Your task to perform on an android device: Open internet settings Image 0: 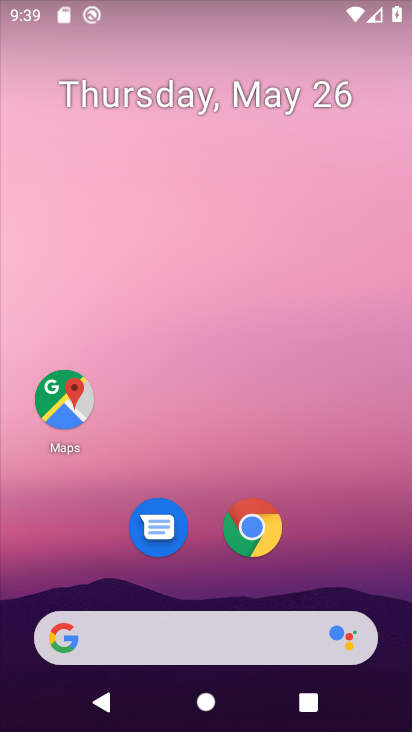
Step 0: drag from (151, 720) to (150, 66)
Your task to perform on an android device: Open internet settings Image 1: 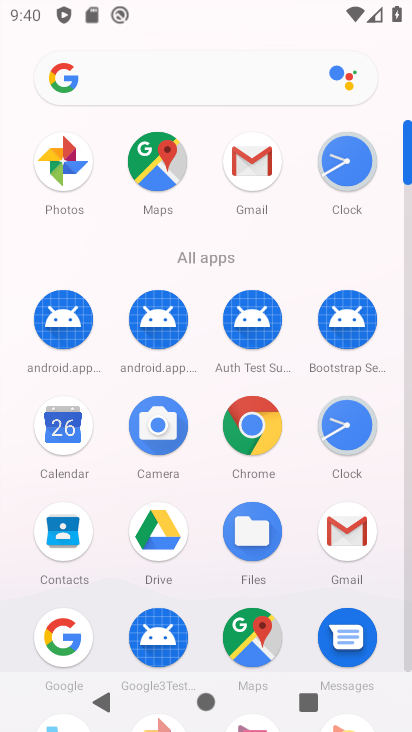
Step 1: drag from (101, 337) to (101, 223)
Your task to perform on an android device: Open internet settings Image 2: 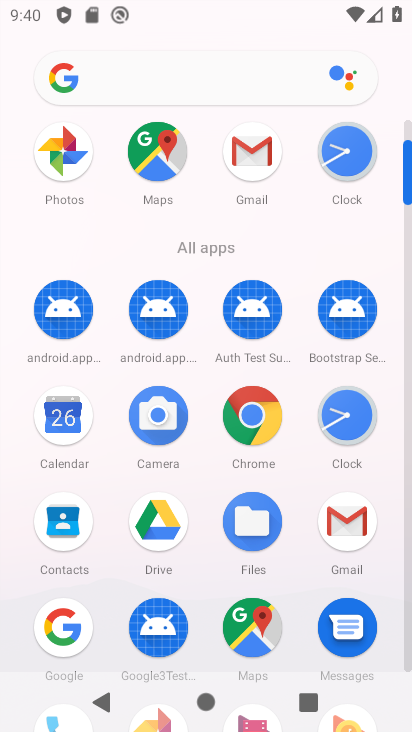
Step 2: drag from (111, 564) to (96, 260)
Your task to perform on an android device: Open internet settings Image 3: 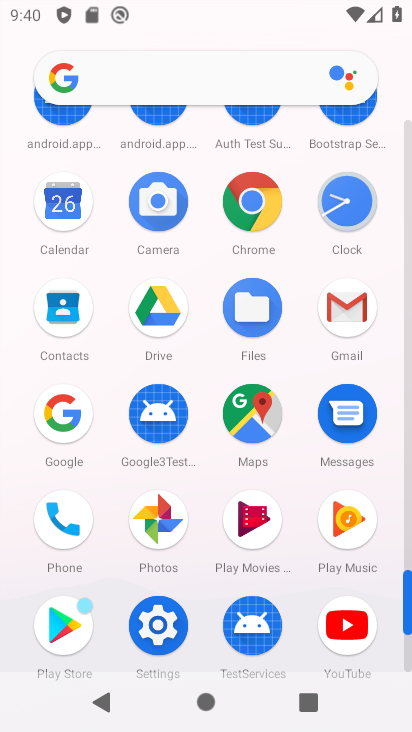
Step 3: click (155, 623)
Your task to perform on an android device: Open internet settings Image 4: 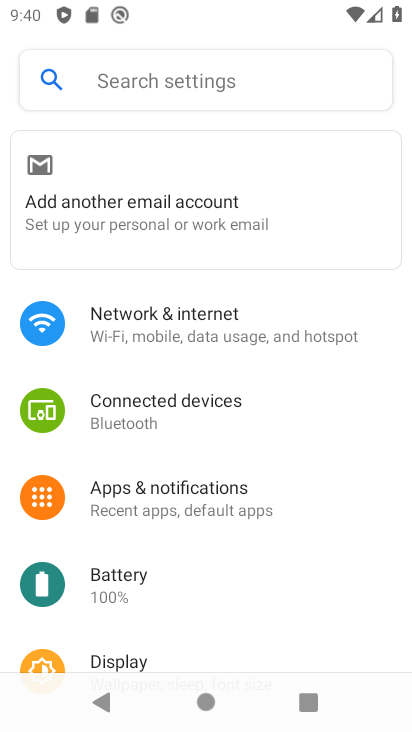
Step 4: click (214, 329)
Your task to perform on an android device: Open internet settings Image 5: 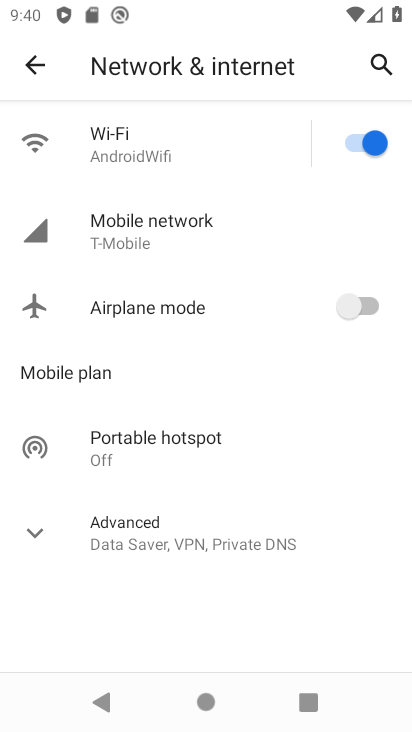
Step 5: click (192, 545)
Your task to perform on an android device: Open internet settings Image 6: 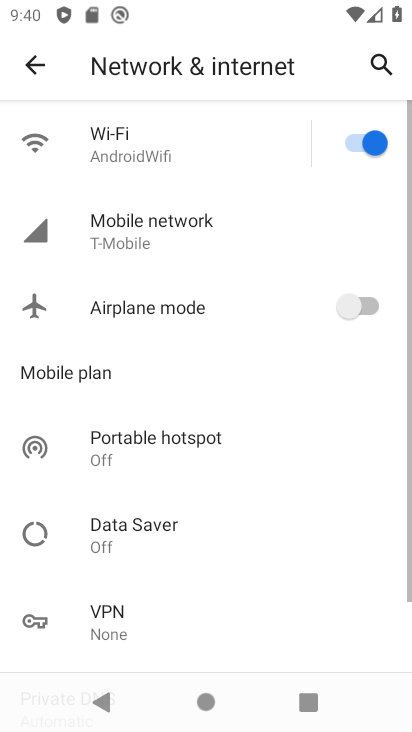
Step 6: click (188, 642)
Your task to perform on an android device: Open internet settings Image 7: 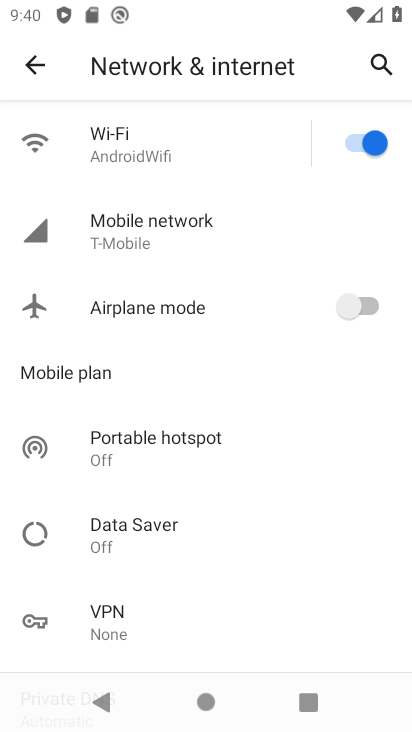
Step 7: task complete